Your task to perform on an android device: Open the calendar and show me this week's events? Image 0: 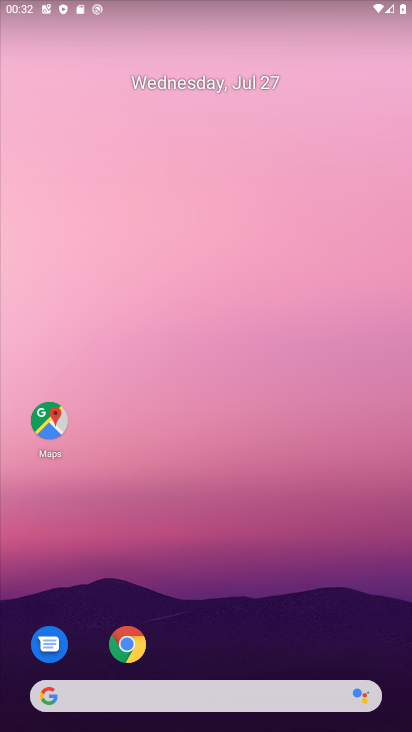
Step 0: drag from (257, 635) to (169, 180)
Your task to perform on an android device: Open the calendar and show me this week's events? Image 1: 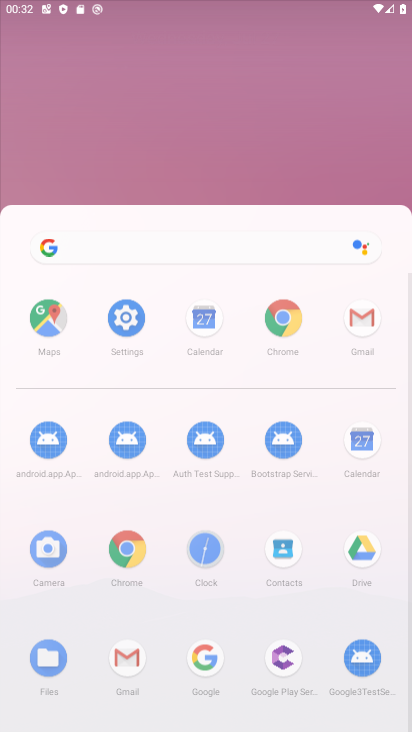
Step 1: click (198, 176)
Your task to perform on an android device: Open the calendar and show me this week's events? Image 2: 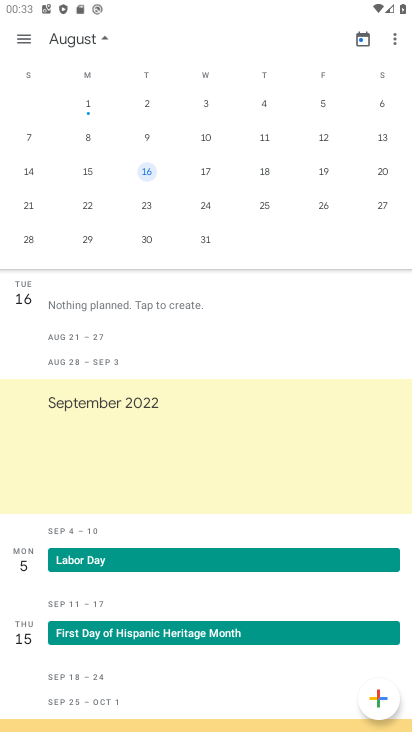
Step 2: drag from (57, 159) to (254, 161)
Your task to perform on an android device: Open the calendar and show me this week's events? Image 3: 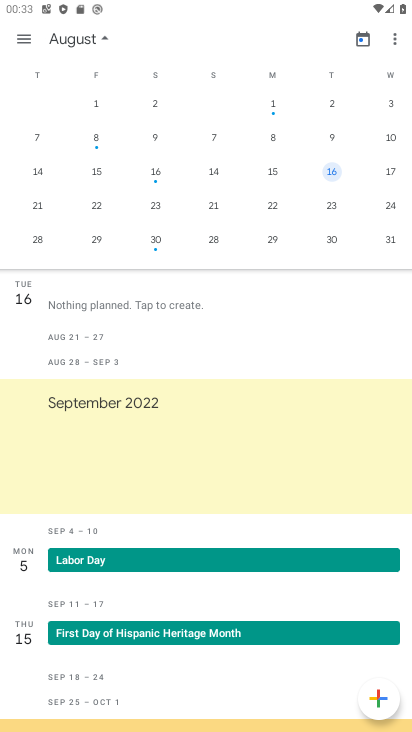
Step 3: drag from (35, 137) to (320, 170)
Your task to perform on an android device: Open the calendar and show me this week's events? Image 4: 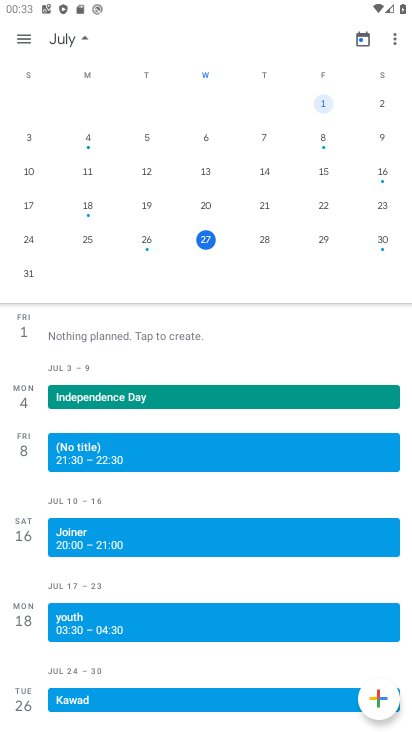
Step 4: drag from (228, 162) to (309, 162)
Your task to perform on an android device: Open the calendar and show me this week's events? Image 5: 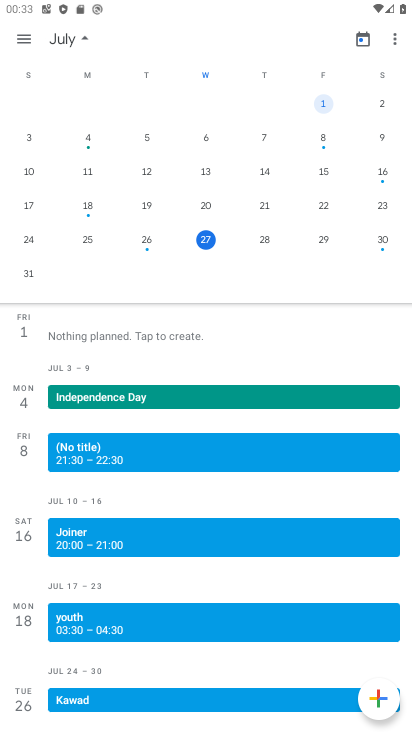
Step 5: click (319, 229)
Your task to perform on an android device: Open the calendar and show me this week's events? Image 6: 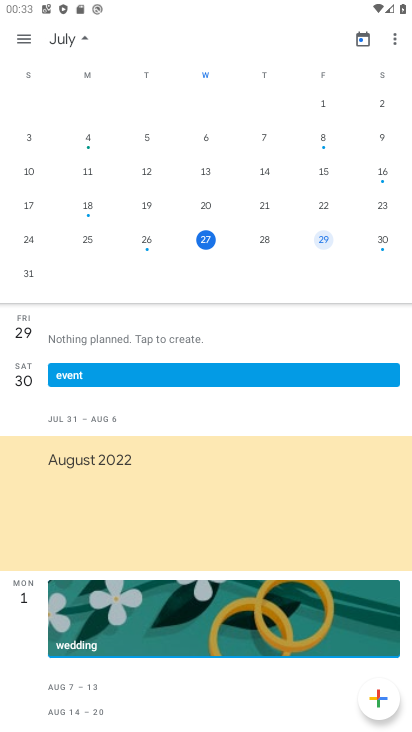
Step 6: click (323, 232)
Your task to perform on an android device: Open the calendar and show me this week's events? Image 7: 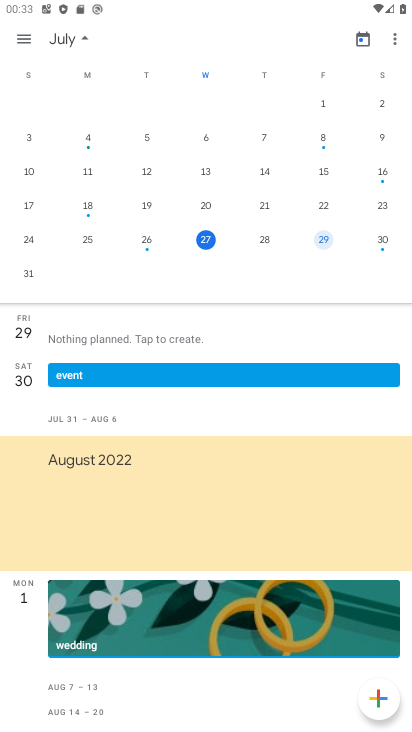
Step 7: click (321, 235)
Your task to perform on an android device: Open the calendar and show me this week's events? Image 8: 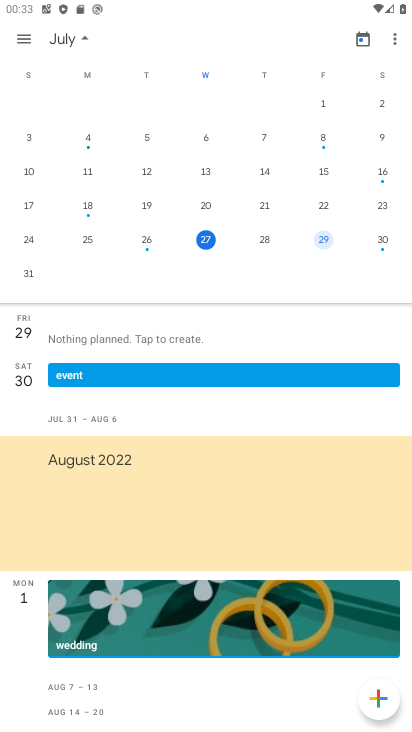
Step 8: click (321, 229)
Your task to perform on an android device: Open the calendar and show me this week's events? Image 9: 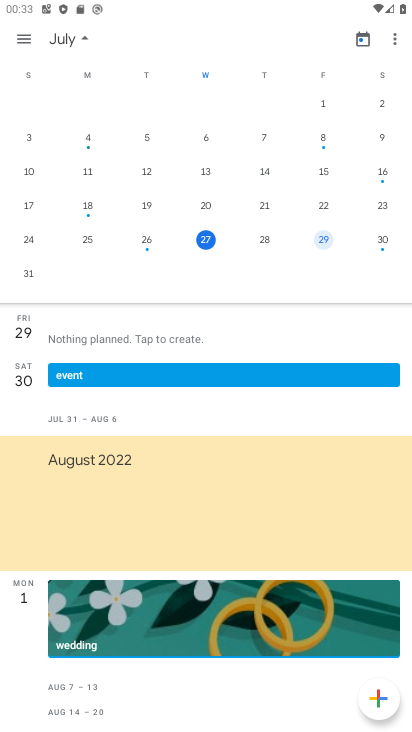
Step 9: task complete